Your task to perform on an android device: snooze an email in the gmail app Image 0: 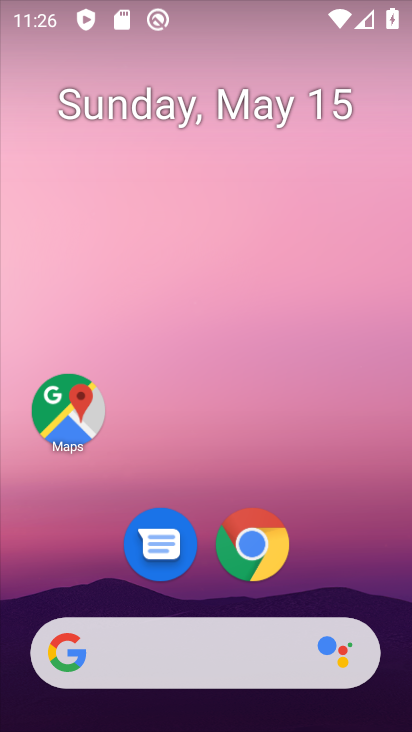
Step 0: drag from (365, 579) to (209, 93)
Your task to perform on an android device: snooze an email in the gmail app Image 1: 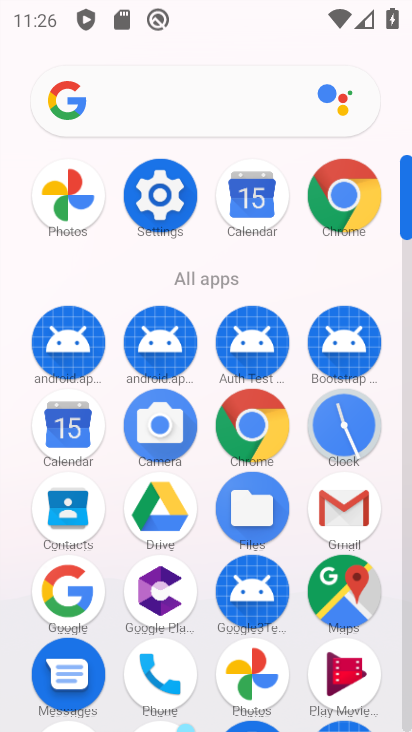
Step 1: click (368, 503)
Your task to perform on an android device: snooze an email in the gmail app Image 2: 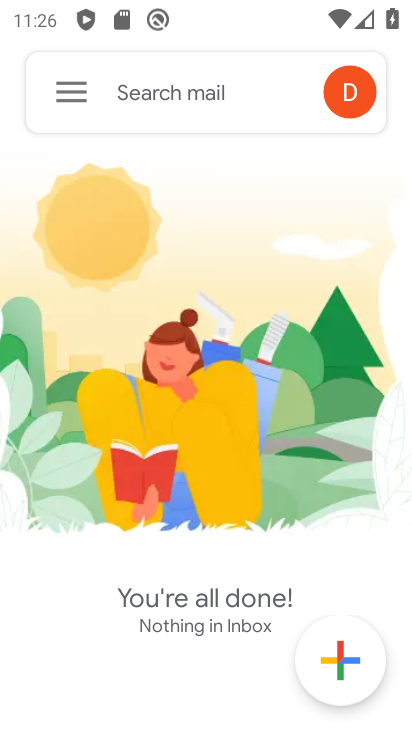
Step 2: click (87, 94)
Your task to perform on an android device: snooze an email in the gmail app Image 3: 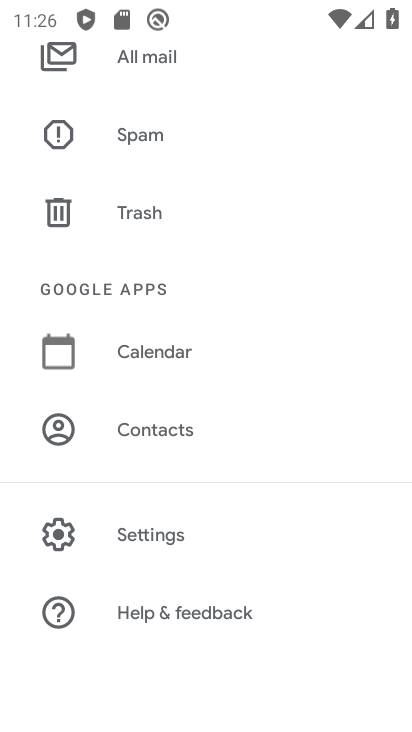
Step 3: click (216, 65)
Your task to perform on an android device: snooze an email in the gmail app Image 4: 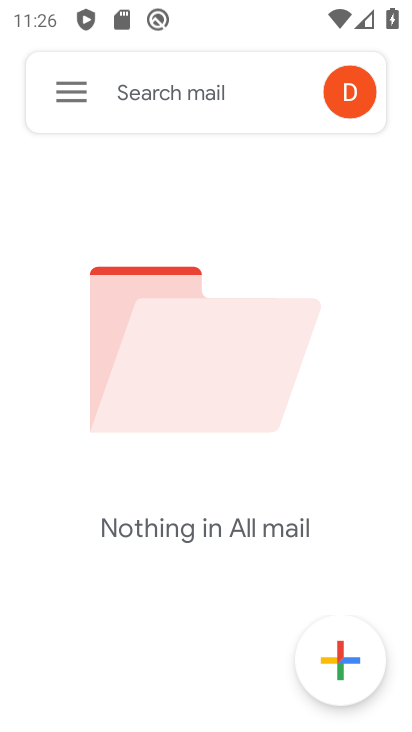
Step 4: click (59, 112)
Your task to perform on an android device: snooze an email in the gmail app Image 5: 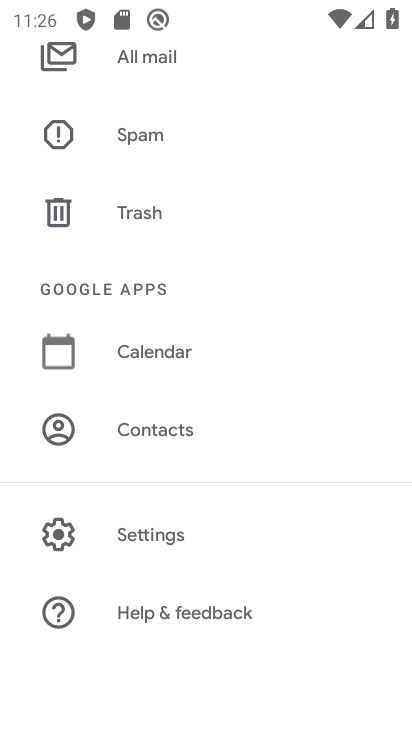
Step 5: drag from (283, 142) to (277, 244)
Your task to perform on an android device: snooze an email in the gmail app Image 6: 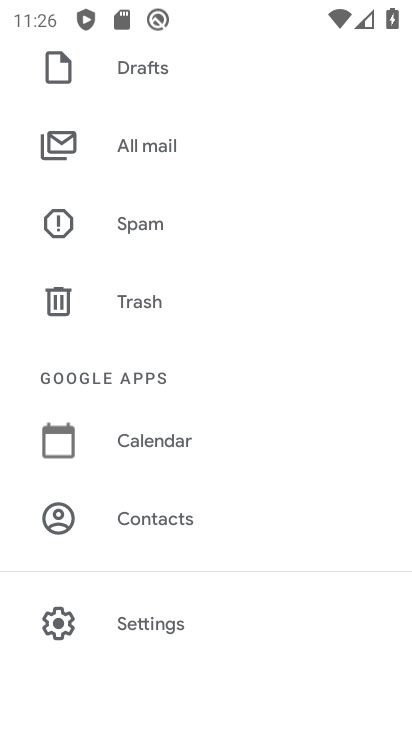
Step 6: click (211, 147)
Your task to perform on an android device: snooze an email in the gmail app Image 7: 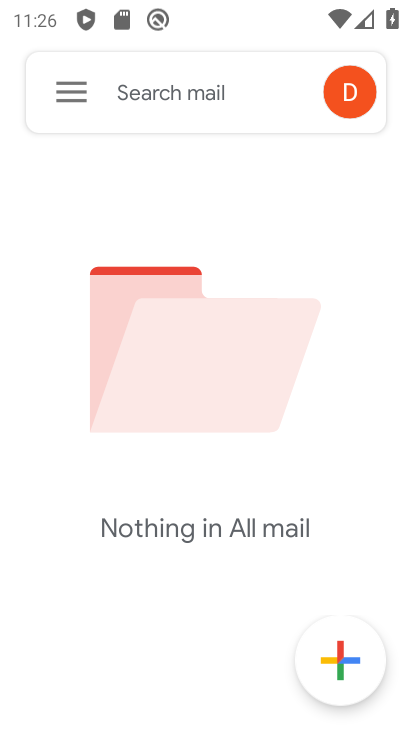
Step 7: task complete